Your task to perform on an android device: Search for Mexican restaurants on Maps Image 0: 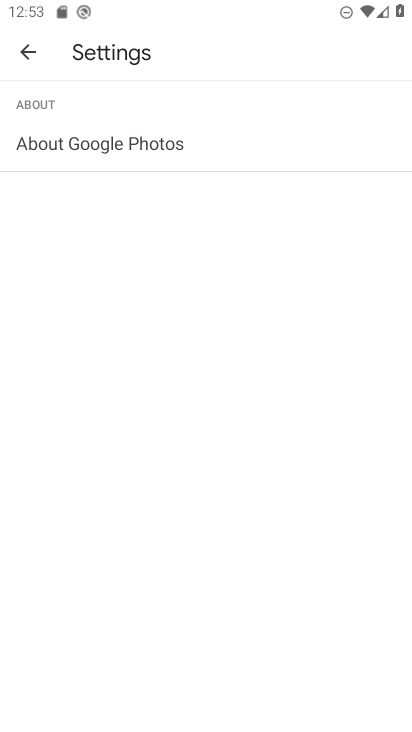
Step 0: press home button
Your task to perform on an android device: Search for Mexican restaurants on Maps Image 1: 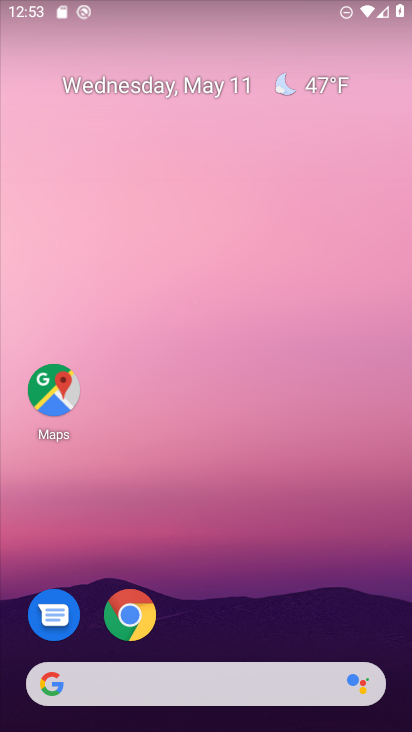
Step 1: drag from (229, 606) to (239, 101)
Your task to perform on an android device: Search for Mexican restaurants on Maps Image 2: 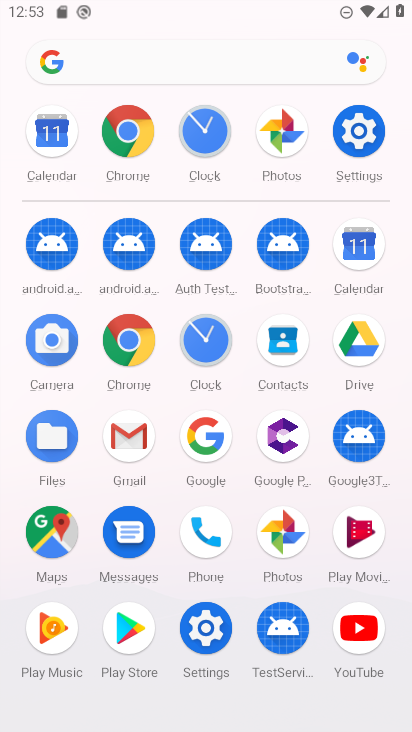
Step 2: click (46, 524)
Your task to perform on an android device: Search for Mexican restaurants on Maps Image 3: 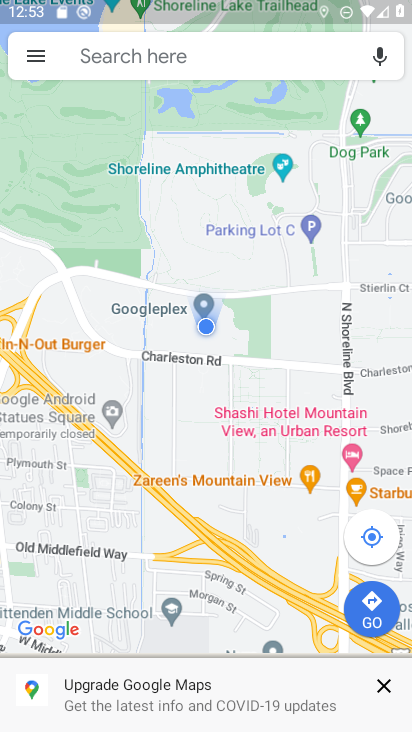
Step 3: click (175, 57)
Your task to perform on an android device: Search for Mexican restaurants on Maps Image 4: 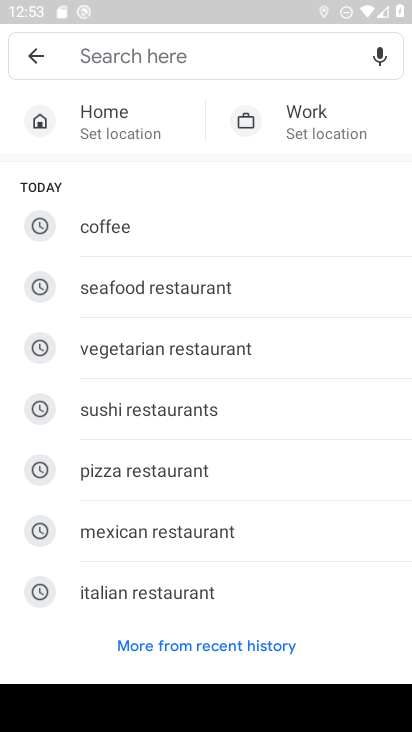
Step 4: click (183, 523)
Your task to perform on an android device: Search for Mexican restaurants on Maps Image 5: 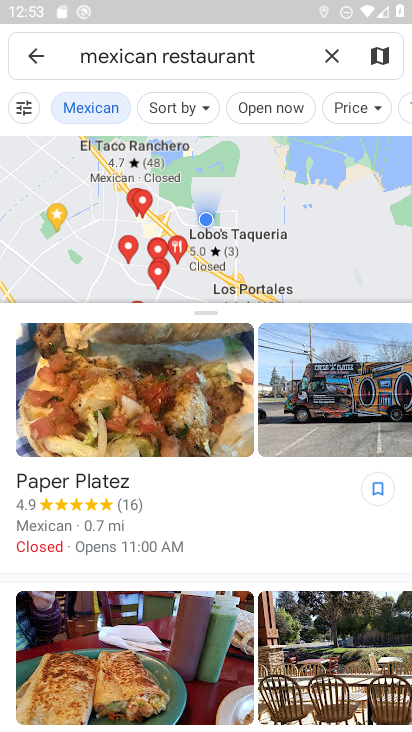
Step 5: task complete